Your task to perform on an android device: What is the news today? Image 0: 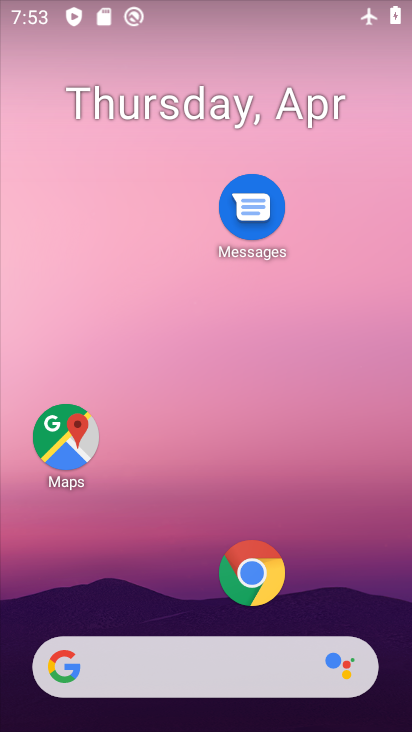
Step 0: click (212, 16)
Your task to perform on an android device: What is the news today? Image 1: 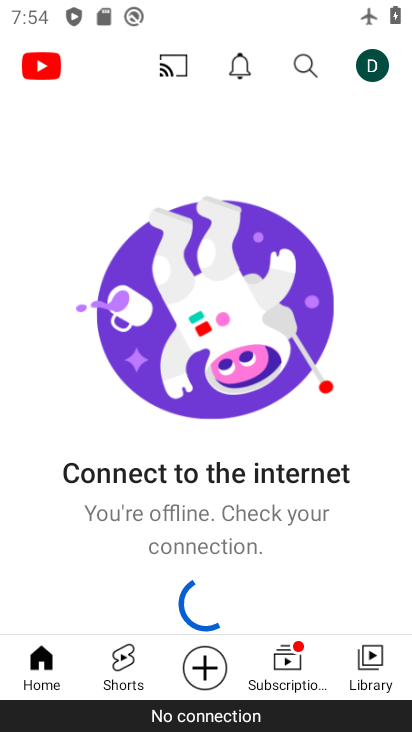
Step 1: task complete